Your task to perform on an android device: Check the weather Image 0: 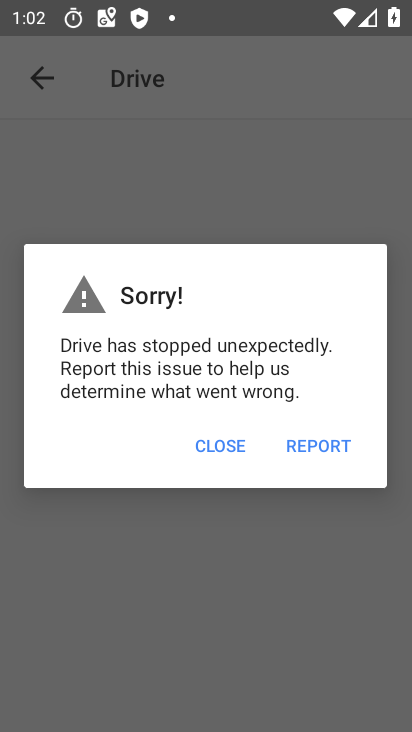
Step 0: press back button
Your task to perform on an android device: Check the weather Image 1: 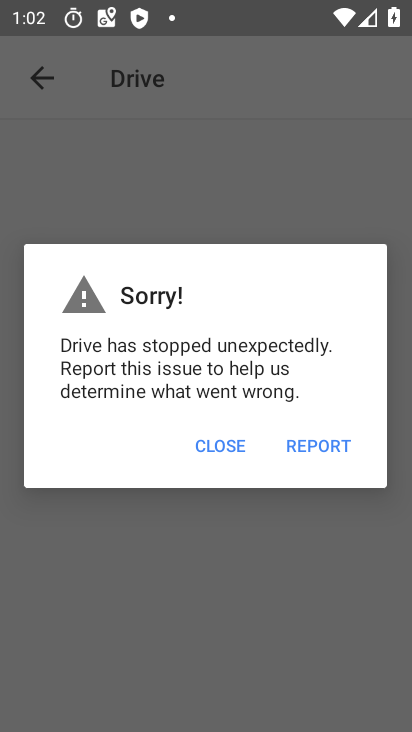
Step 1: press home button
Your task to perform on an android device: Check the weather Image 2: 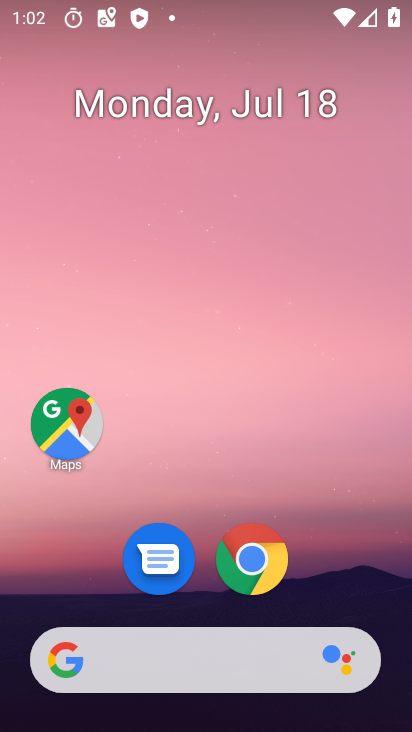
Step 2: click (133, 666)
Your task to perform on an android device: Check the weather Image 3: 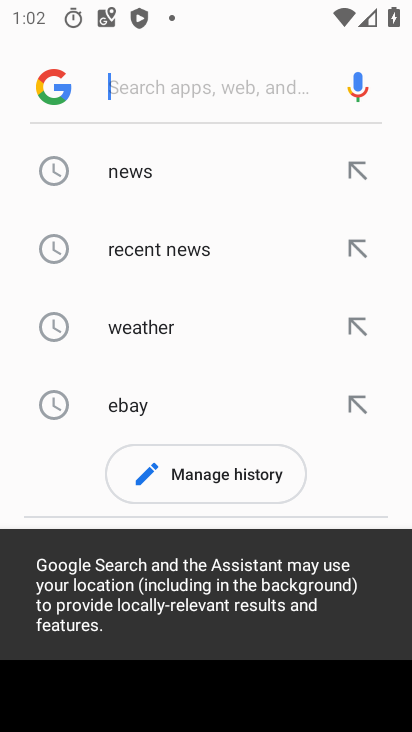
Step 3: click (150, 305)
Your task to perform on an android device: Check the weather Image 4: 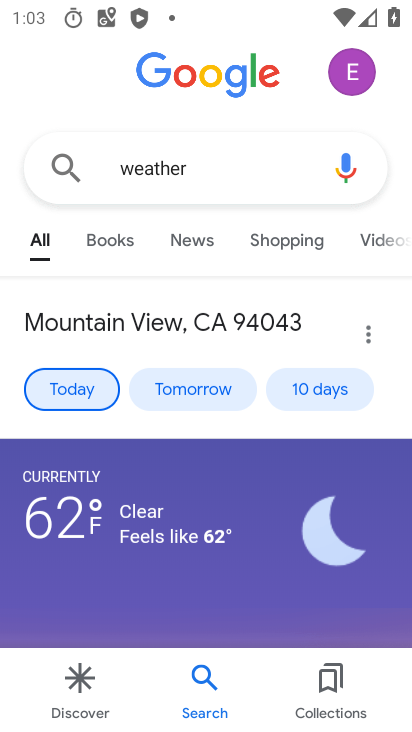
Step 4: task complete